Your task to perform on an android device: Open Chrome and go to the settings page Image 0: 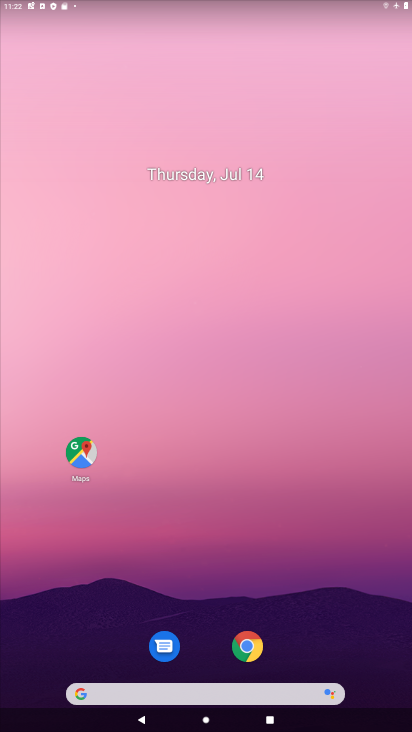
Step 0: click (254, 651)
Your task to perform on an android device: Open Chrome and go to the settings page Image 1: 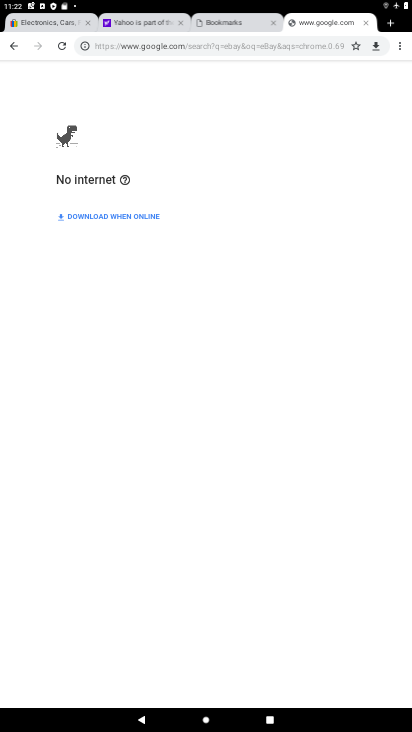
Step 1: click (398, 49)
Your task to perform on an android device: Open Chrome and go to the settings page Image 2: 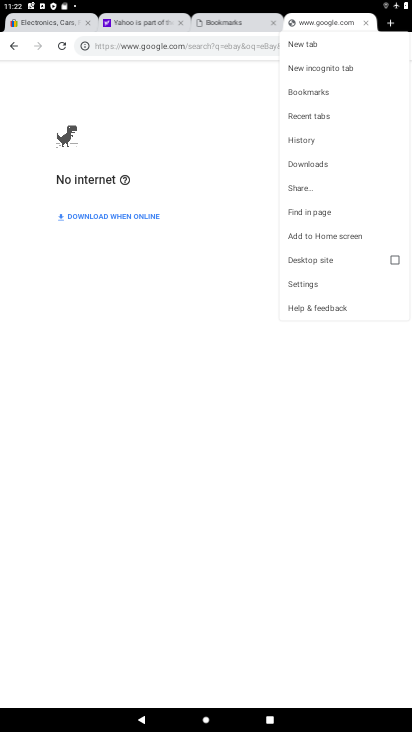
Step 2: click (300, 283)
Your task to perform on an android device: Open Chrome and go to the settings page Image 3: 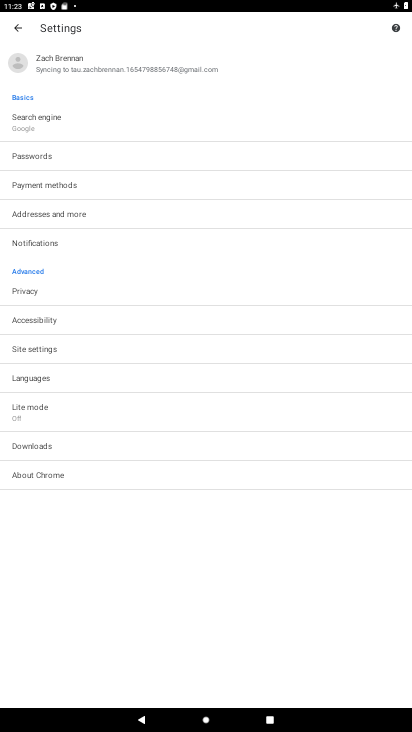
Step 3: task complete